Your task to perform on an android device: turn off notifications in google photos Image 0: 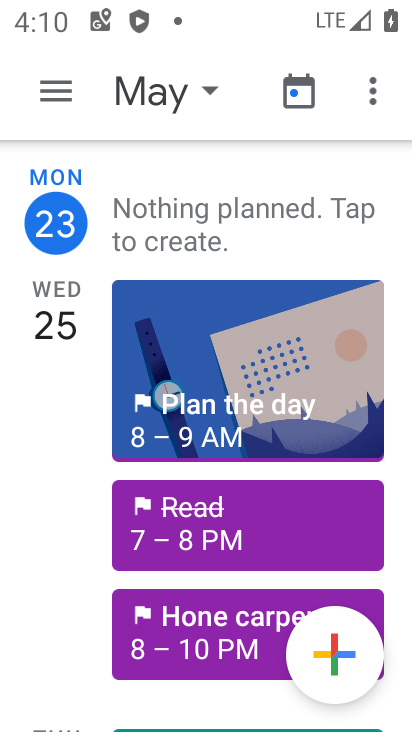
Step 0: press back button
Your task to perform on an android device: turn off notifications in google photos Image 1: 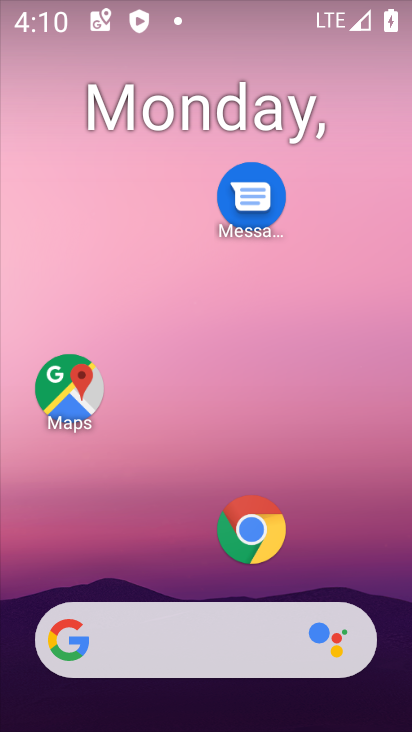
Step 1: drag from (165, 576) to (235, 160)
Your task to perform on an android device: turn off notifications in google photos Image 2: 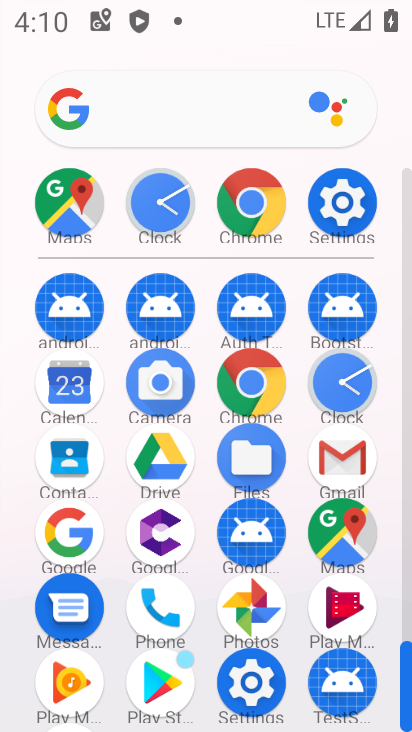
Step 2: click (247, 608)
Your task to perform on an android device: turn off notifications in google photos Image 3: 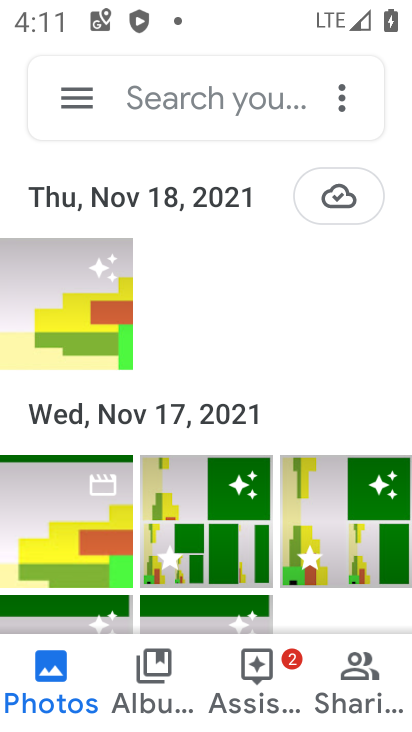
Step 3: click (59, 94)
Your task to perform on an android device: turn off notifications in google photos Image 4: 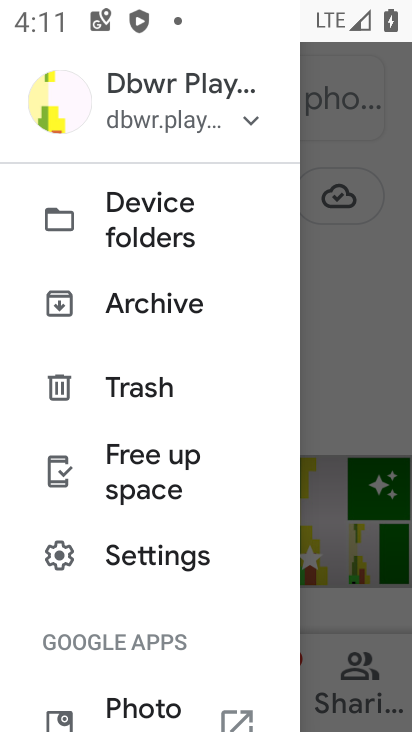
Step 4: click (146, 561)
Your task to perform on an android device: turn off notifications in google photos Image 5: 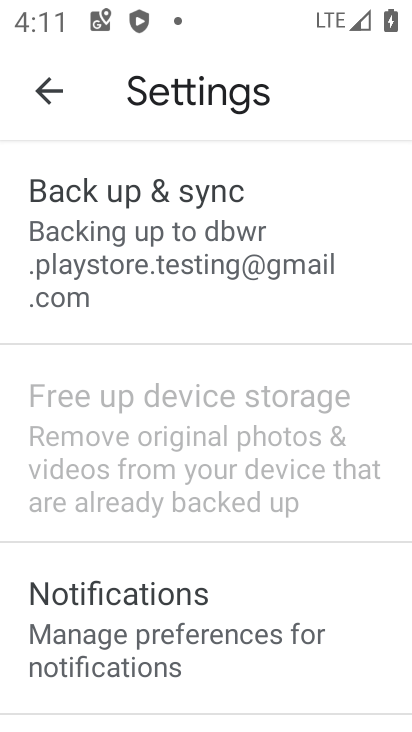
Step 5: click (60, 689)
Your task to perform on an android device: turn off notifications in google photos Image 6: 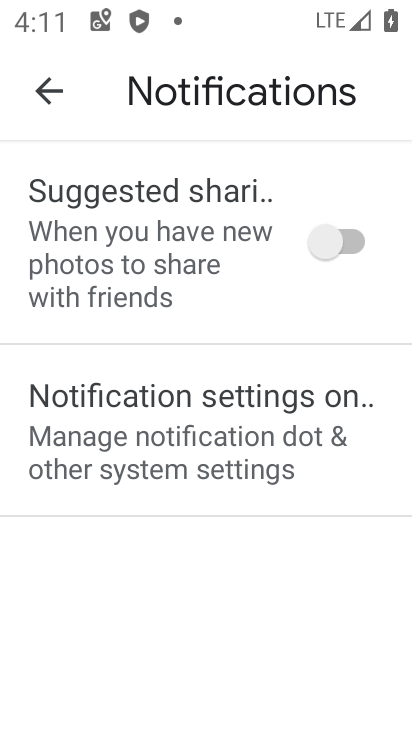
Step 6: click (174, 396)
Your task to perform on an android device: turn off notifications in google photos Image 7: 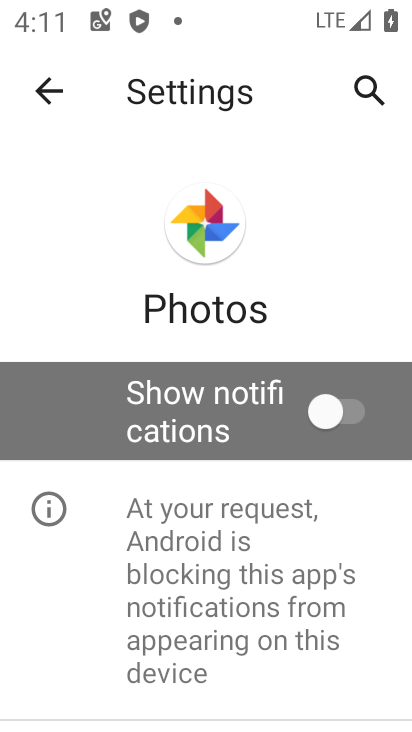
Step 7: task complete